Your task to perform on an android device: change text size in settings app Image 0: 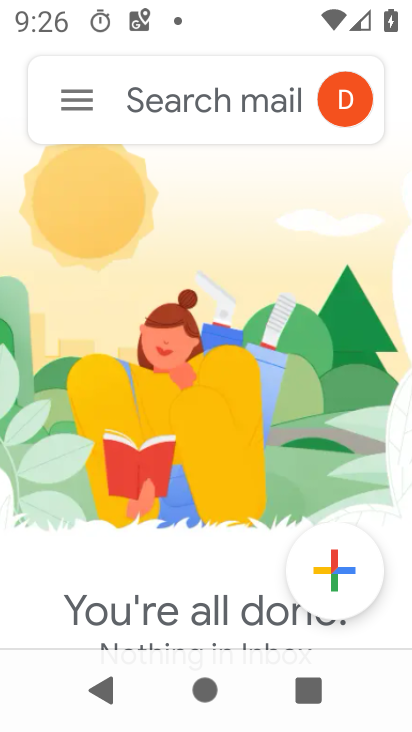
Step 0: press home button
Your task to perform on an android device: change text size in settings app Image 1: 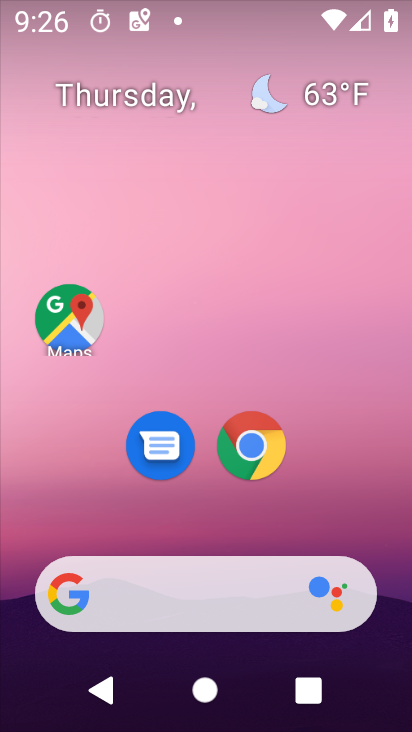
Step 1: drag from (243, 487) to (235, 209)
Your task to perform on an android device: change text size in settings app Image 2: 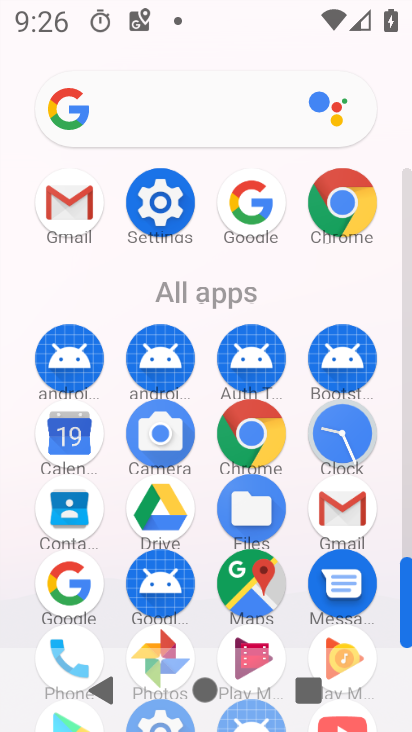
Step 2: click (162, 211)
Your task to perform on an android device: change text size in settings app Image 3: 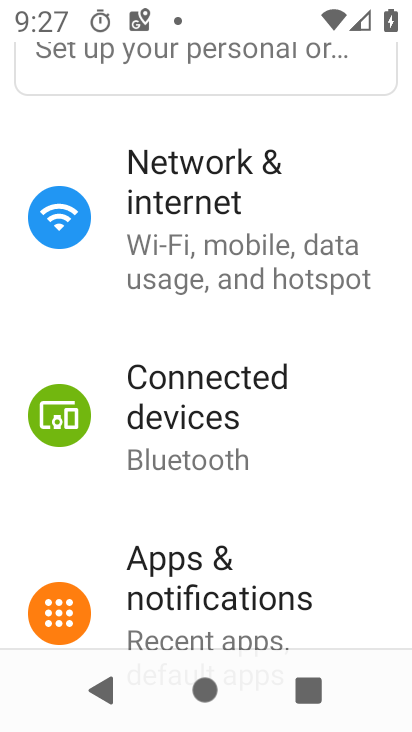
Step 3: drag from (121, 563) to (212, 169)
Your task to perform on an android device: change text size in settings app Image 4: 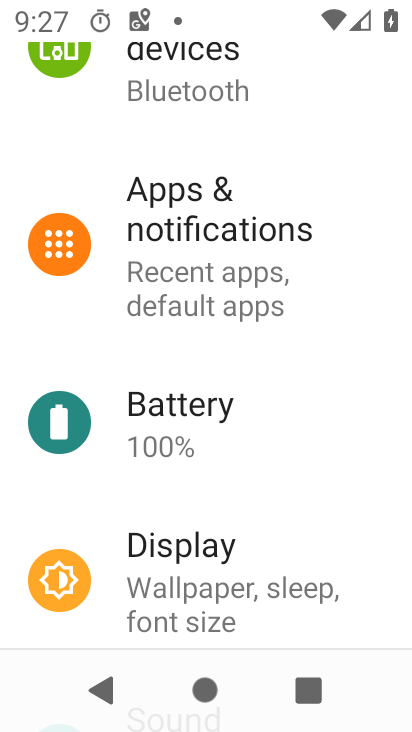
Step 4: drag from (213, 486) to (213, 311)
Your task to perform on an android device: change text size in settings app Image 5: 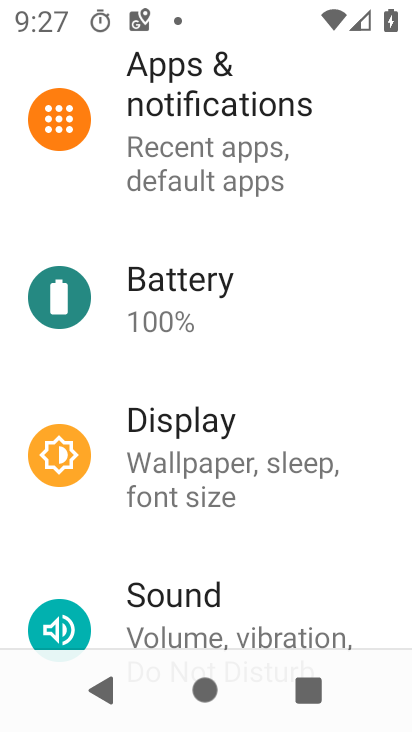
Step 5: click (194, 456)
Your task to perform on an android device: change text size in settings app Image 6: 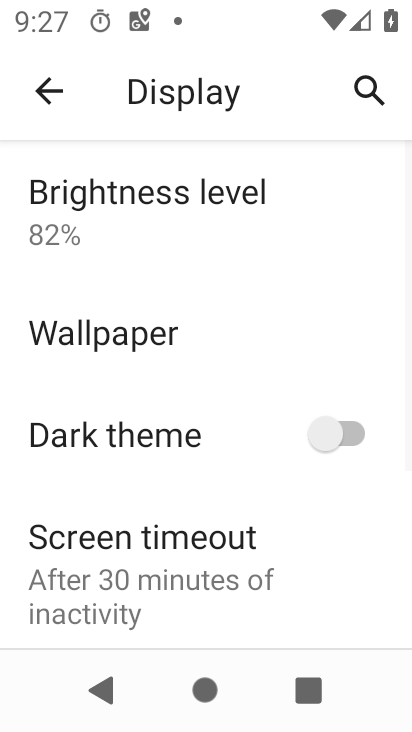
Step 6: drag from (187, 541) to (235, 247)
Your task to perform on an android device: change text size in settings app Image 7: 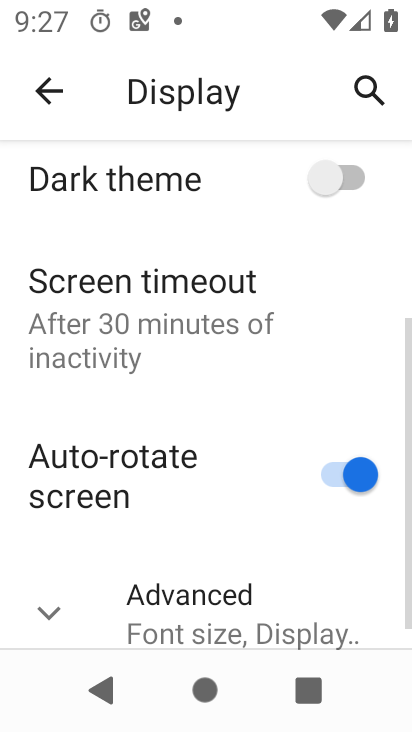
Step 7: drag from (234, 456) to (232, 239)
Your task to perform on an android device: change text size in settings app Image 8: 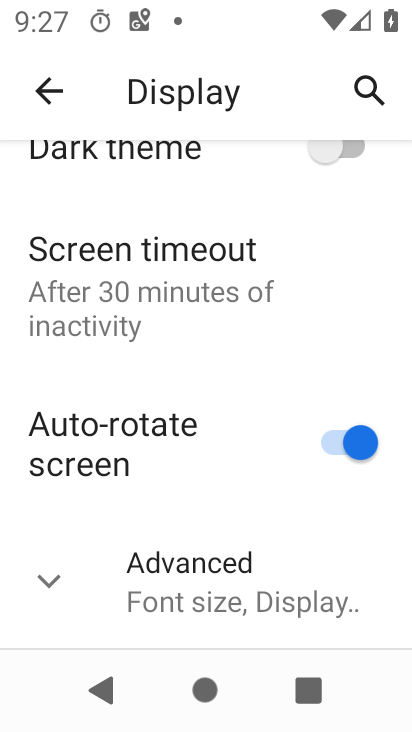
Step 8: click (216, 588)
Your task to perform on an android device: change text size in settings app Image 9: 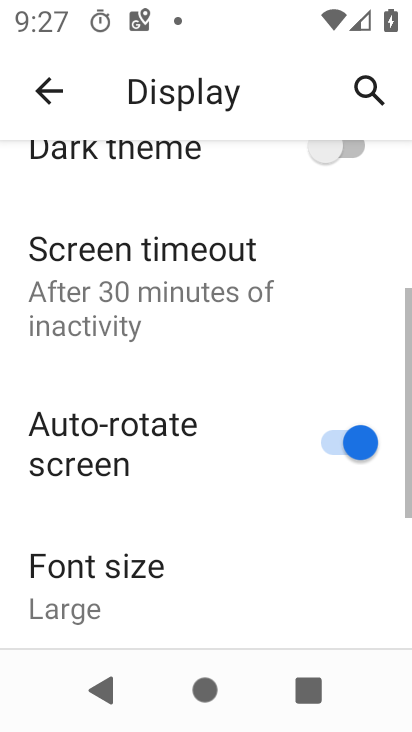
Step 9: drag from (215, 586) to (237, 200)
Your task to perform on an android device: change text size in settings app Image 10: 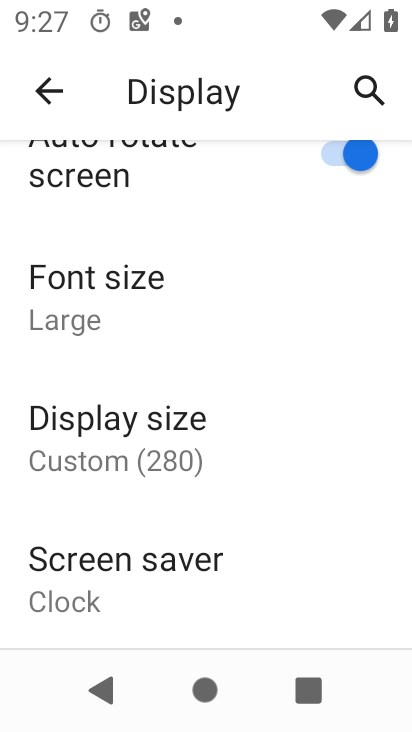
Step 10: click (148, 328)
Your task to perform on an android device: change text size in settings app Image 11: 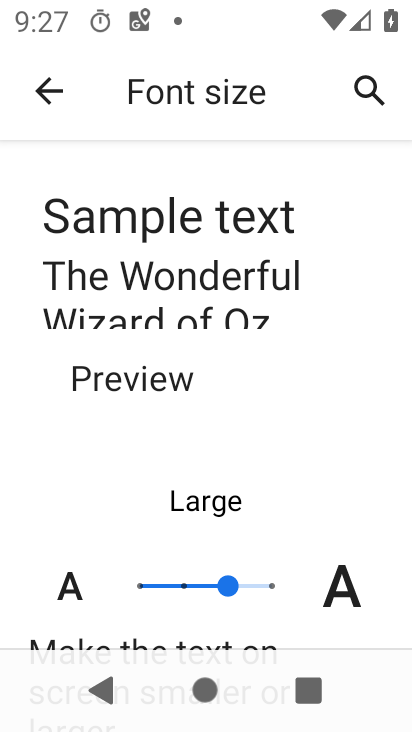
Step 11: click (173, 584)
Your task to perform on an android device: change text size in settings app Image 12: 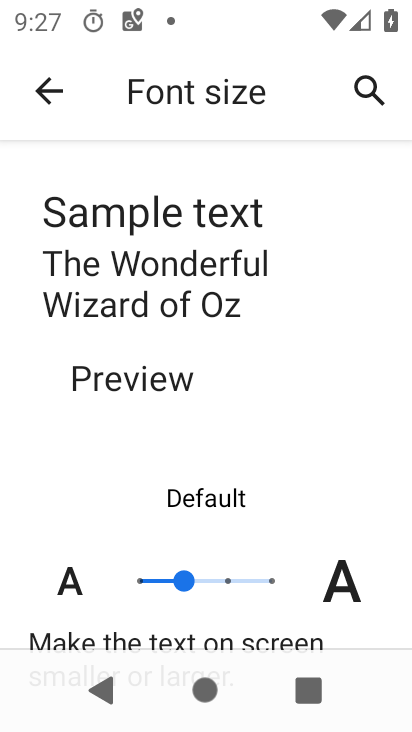
Step 12: task complete